Your task to perform on an android device: Find coffee shops on Maps Image 0: 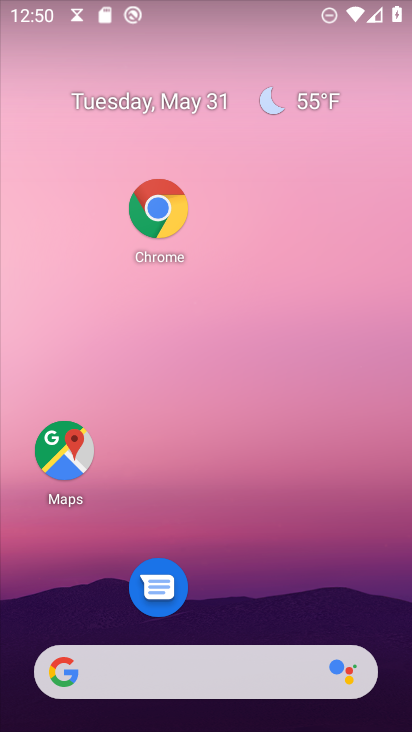
Step 0: click (68, 469)
Your task to perform on an android device: Find coffee shops on Maps Image 1: 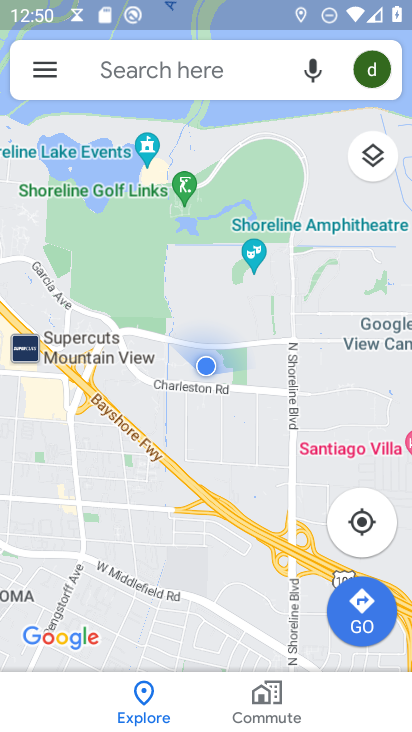
Step 1: click (148, 68)
Your task to perform on an android device: Find coffee shops on Maps Image 2: 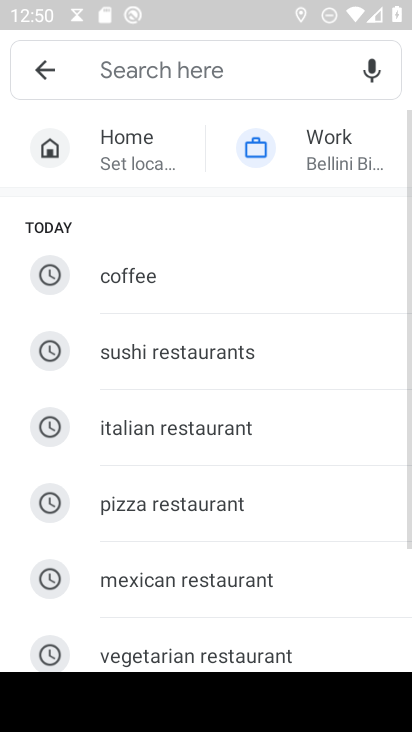
Step 2: click (108, 277)
Your task to perform on an android device: Find coffee shops on Maps Image 3: 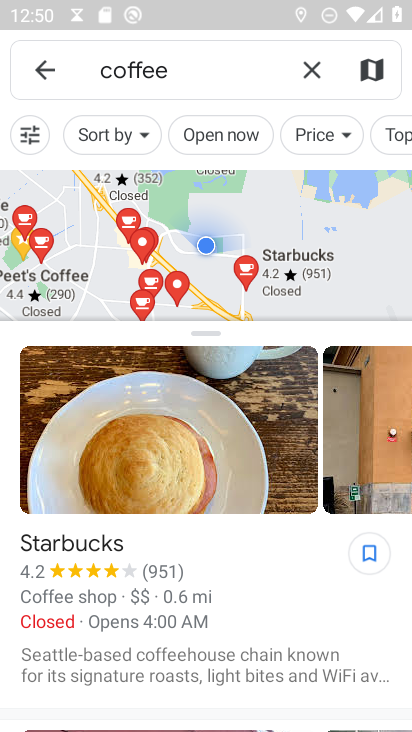
Step 3: task complete